Your task to perform on an android device: Find coffee shops on Maps Image 0: 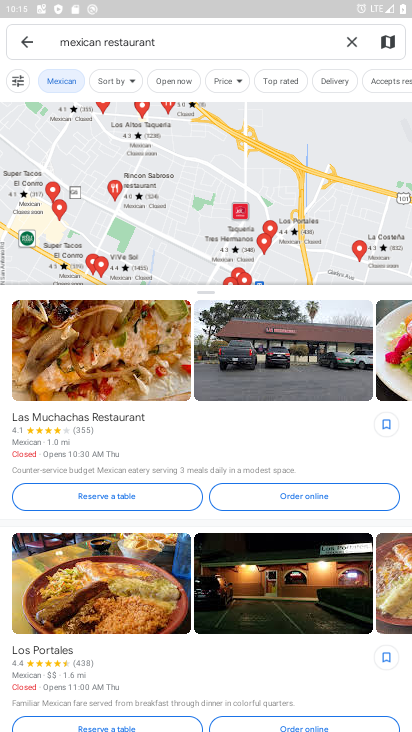
Step 0: click (352, 36)
Your task to perform on an android device: Find coffee shops on Maps Image 1: 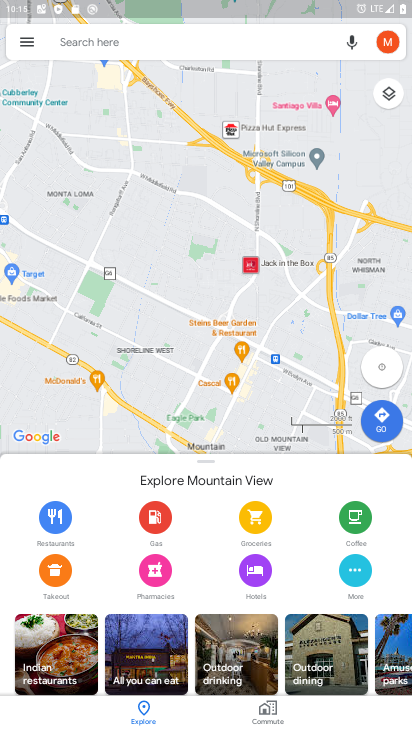
Step 1: click (174, 37)
Your task to perform on an android device: Find coffee shops on Maps Image 2: 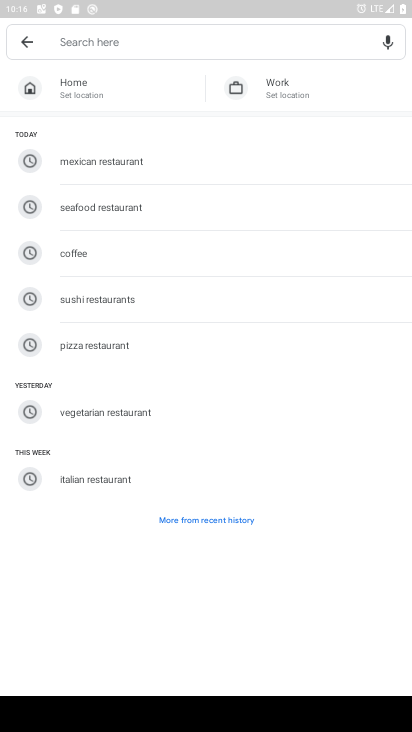
Step 2: type "coffee shops"
Your task to perform on an android device: Find coffee shops on Maps Image 3: 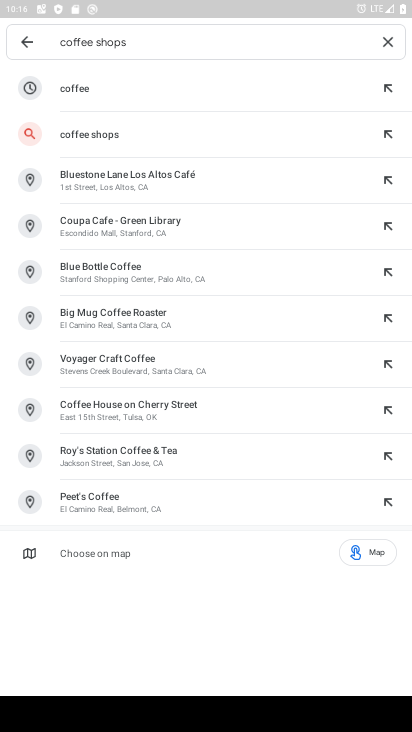
Step 3: click (95, 131)
Your task to perform on an android device: Find coffee shops on Maps Image 4: 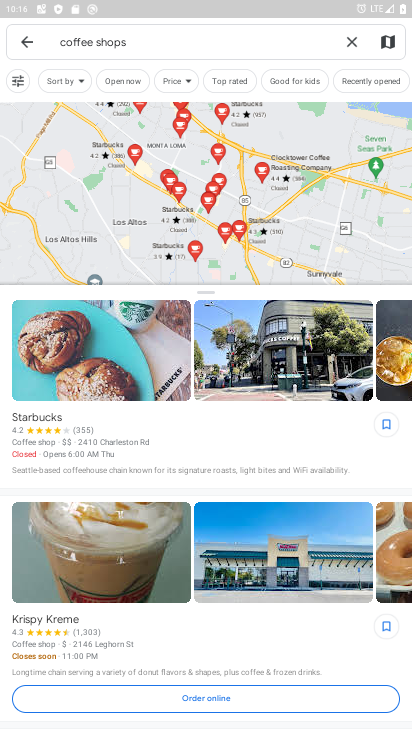
Step 4: task complete